Your task to perform on an android device: add a contact in the contacts app Image 0: 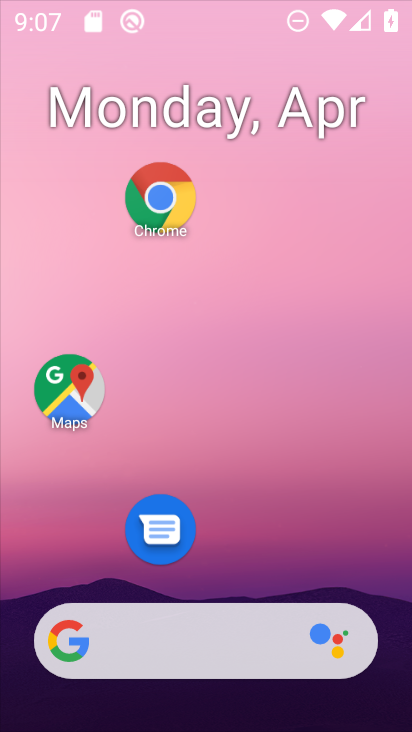
Step 0: click (161, 192)
Your task to perform on an android device: add a contact in the contacts app Image 1: 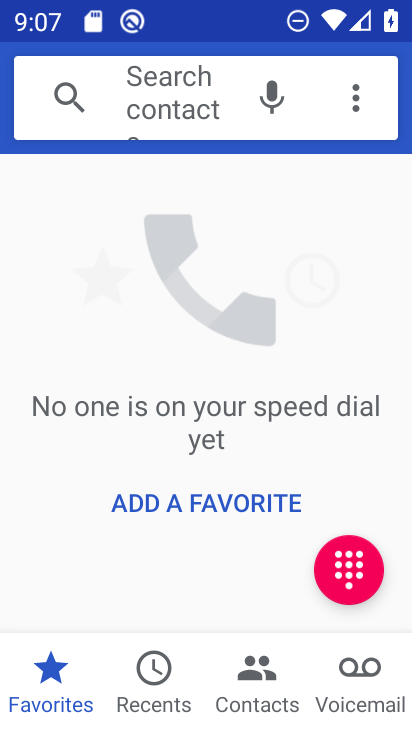
Step 1: click (352, 573)
Your task to perform on an android device: add a contact in the contacts app Image 2: 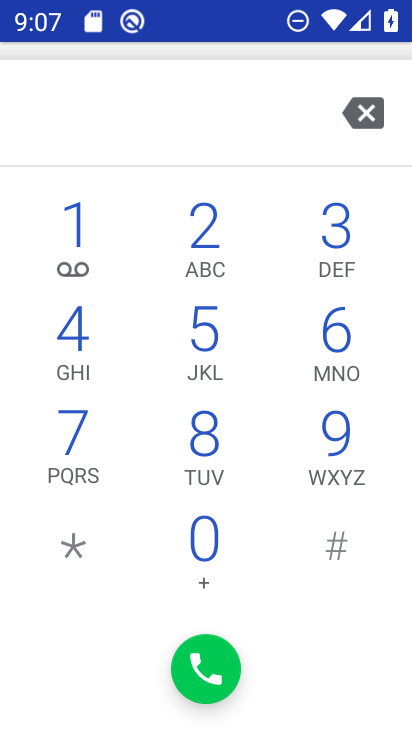
Step 2: press back button
Your task to perform on an android device: add a contact in the contacts app Image 3: 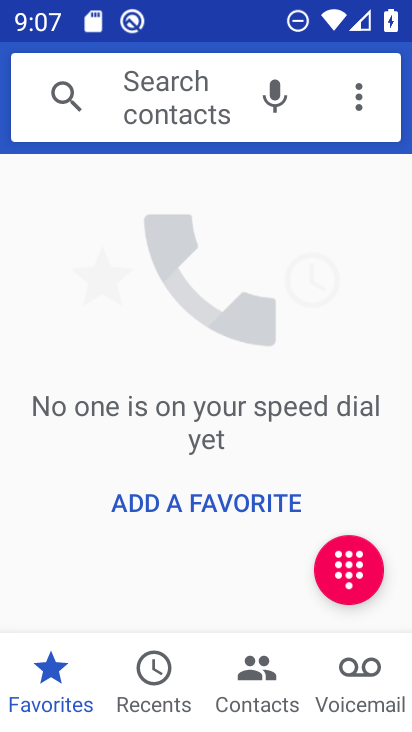
Step 3: press back button
Your task to perform on an android device: add a contact in the contacts app Image 4: 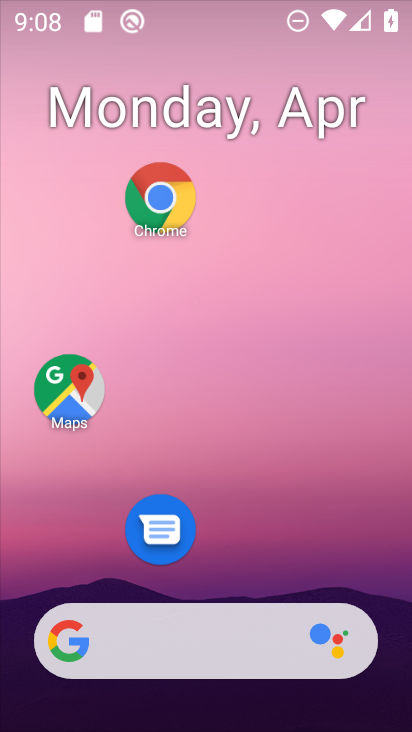
Step 4: drag from (203, 504) to (271, 8)
Your task to perform on an android device: add a contact in the contacts app Image 5: 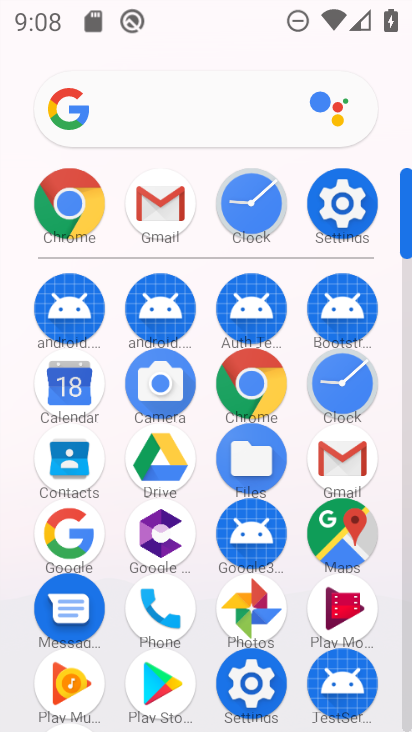
Step 5: click (73, 463)
Your task to perform on an android device: add a contact in the contacts app Image 6: 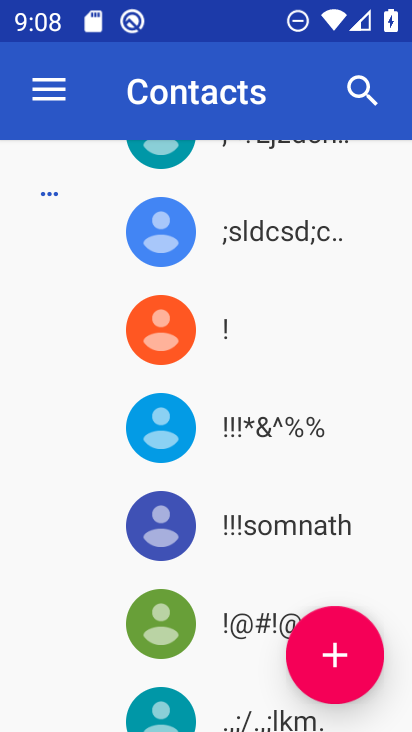
Step 6: click (323, 651)
Your task to perform on an android device: add a contact in the contacts app Image 7: 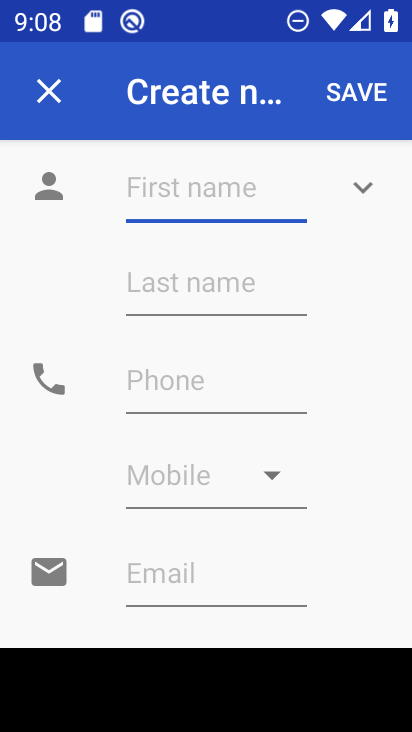
Step 7: click (149, 165)
Your task to perform on an android device: add a contact in the contacts app Image 8: 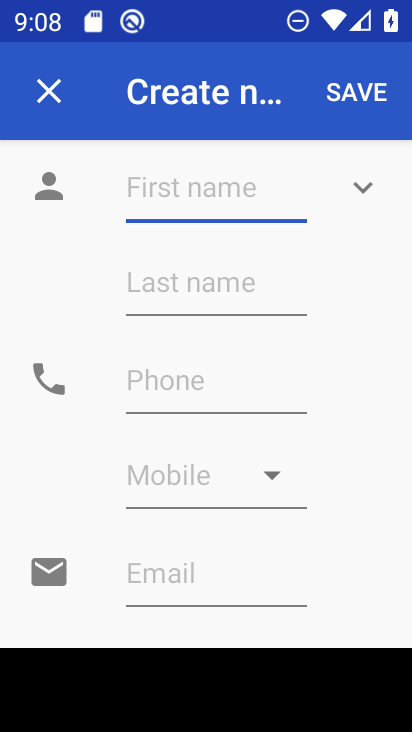
Step 8: type "fgfgf"
Your task to perform on an android device: add a contact in the contacts app Image 9: 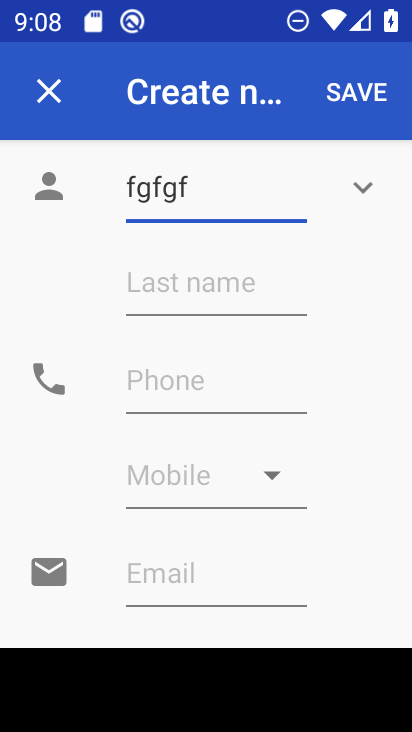
Step 9: click (164, 379)
Your task to perform on an android device: add a contact in the contacts app Image 10: 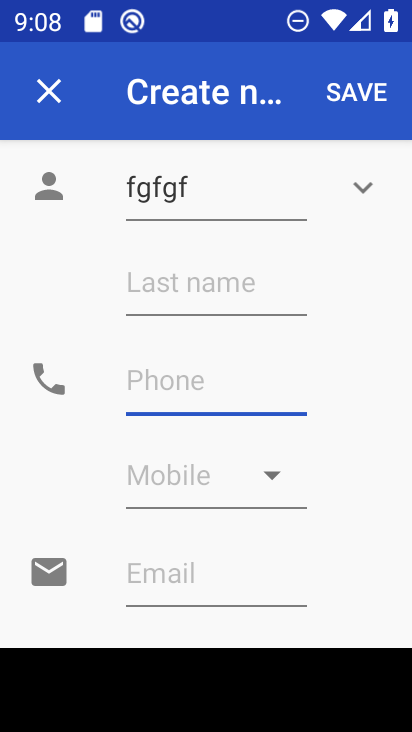
Step 10: type "56546"
Your task to perform on an android device: add a contact in the contacts app Image 11: 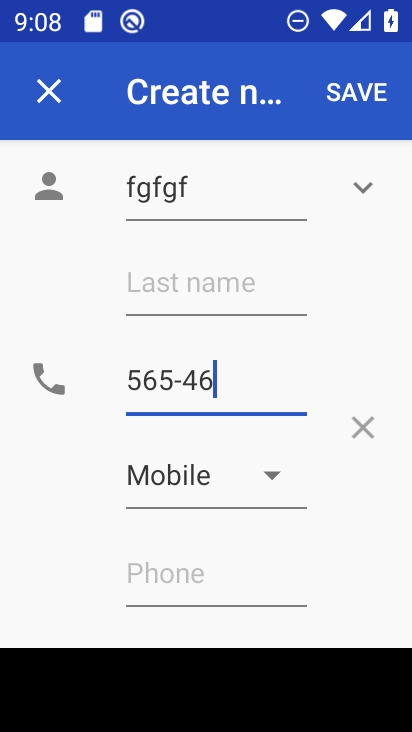
Step 11: click (339, 78)
Your task to perform on an android device: add a contact in the contacts app Image 12: 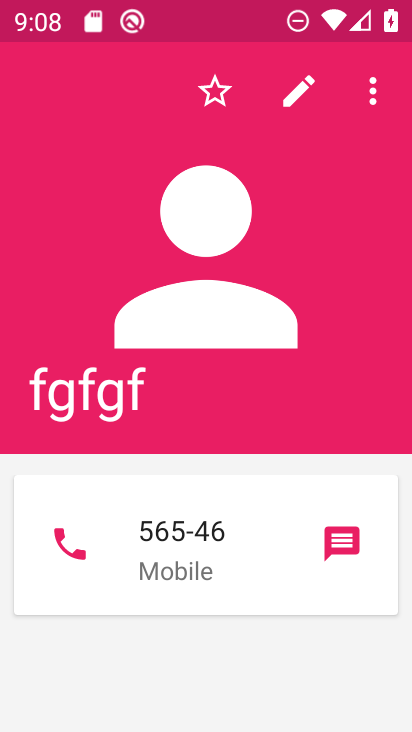
Step 12: task complete